Your task to perform on an android device: Open calendar and show me the first week of next month Image 0: 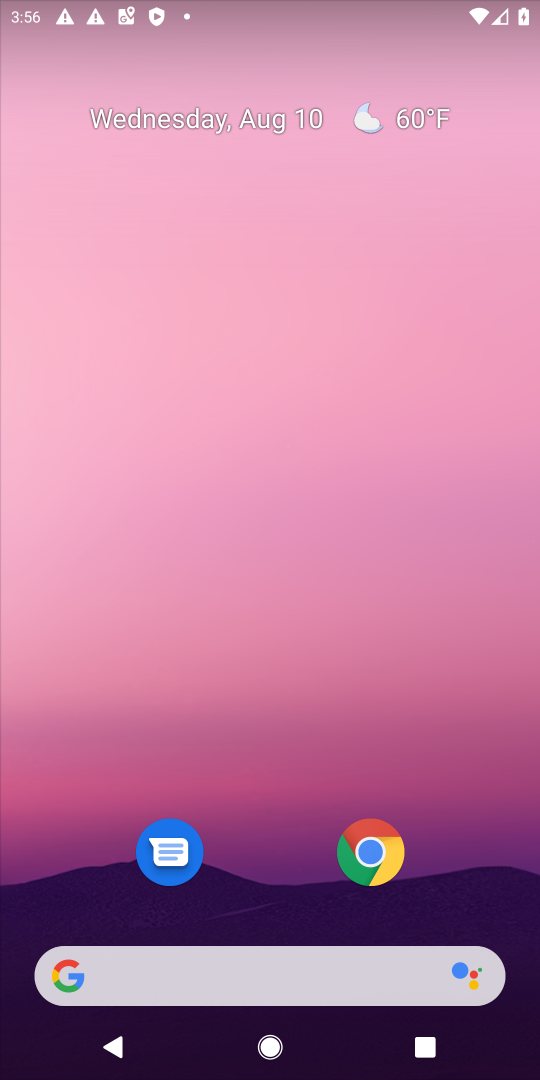
Step 0: drag from (457, 818) to (404, 9)
Your task to perform on an android device: Open calendar and show me the first week of next month Image 1: 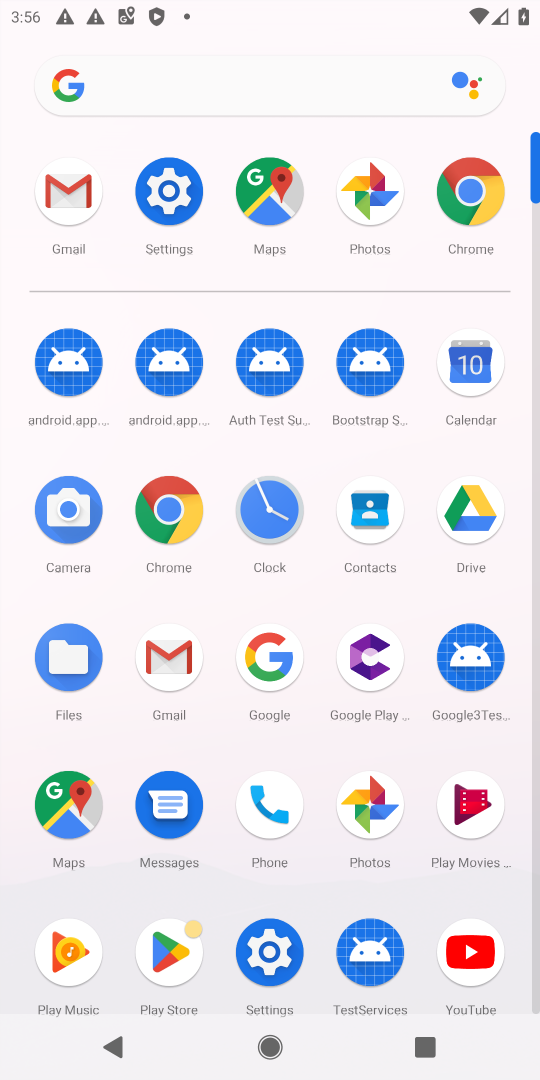
Step 1: click (480, 445)
Your task to perform on an android device: Open calendar and show me the first week of next month Image 2: 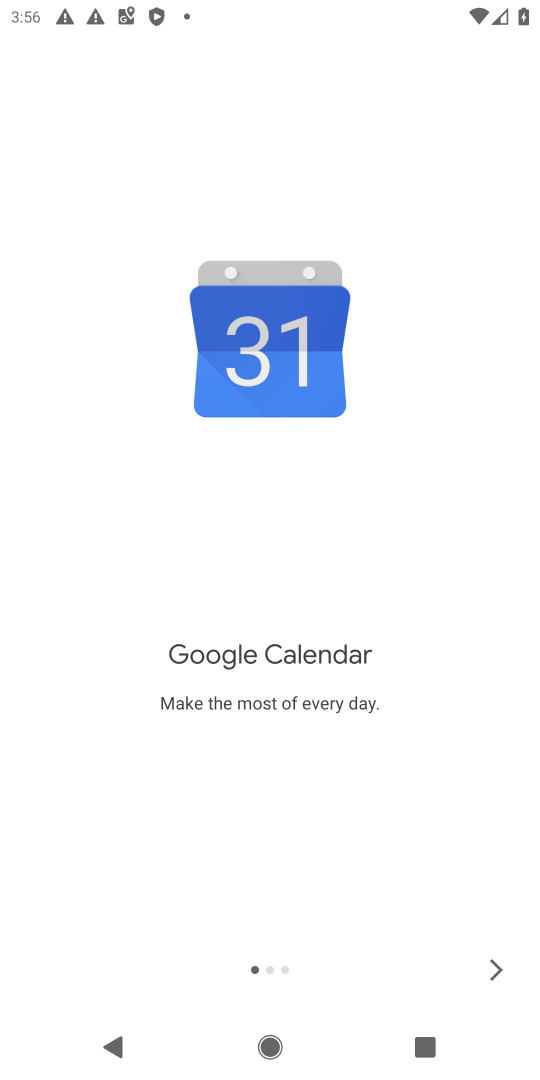
Step 2: click (493, 948)
Your task to perform on an android device: Open calendar and show me the first week of next month Image 3: 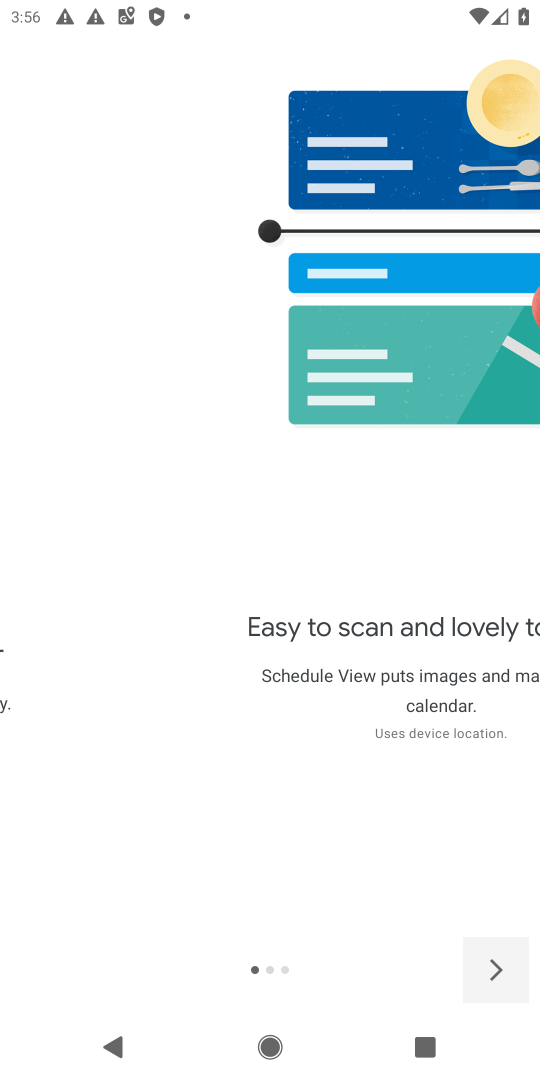
Step 3: click (493, 948)
Your task to perform on an android device: Open calendar and show me the first week of next month Image 4: 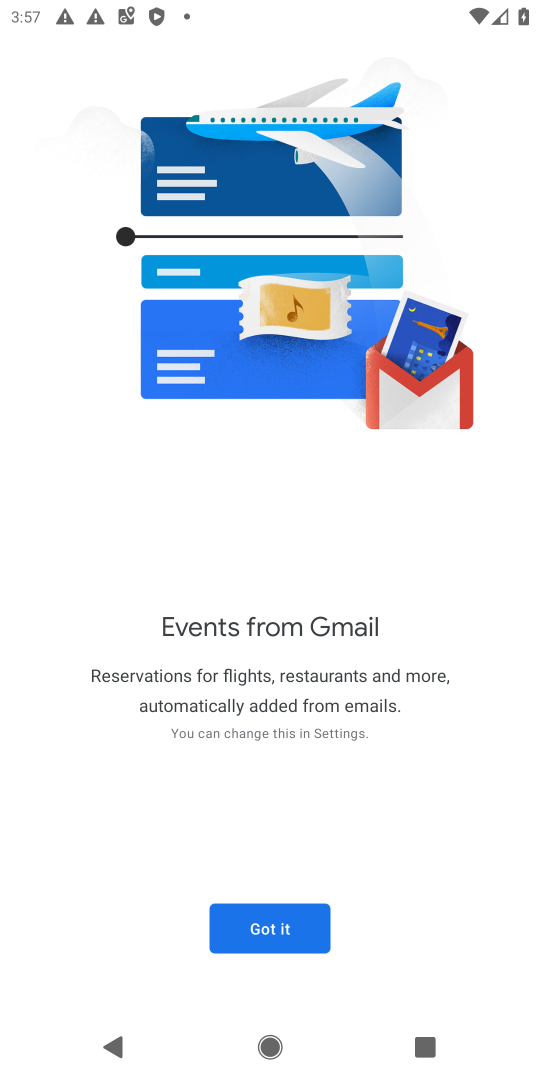
Step 4: click (493, 948)
Your task to perform on an android device: Open calendar and show me the first week of next month Image 5: 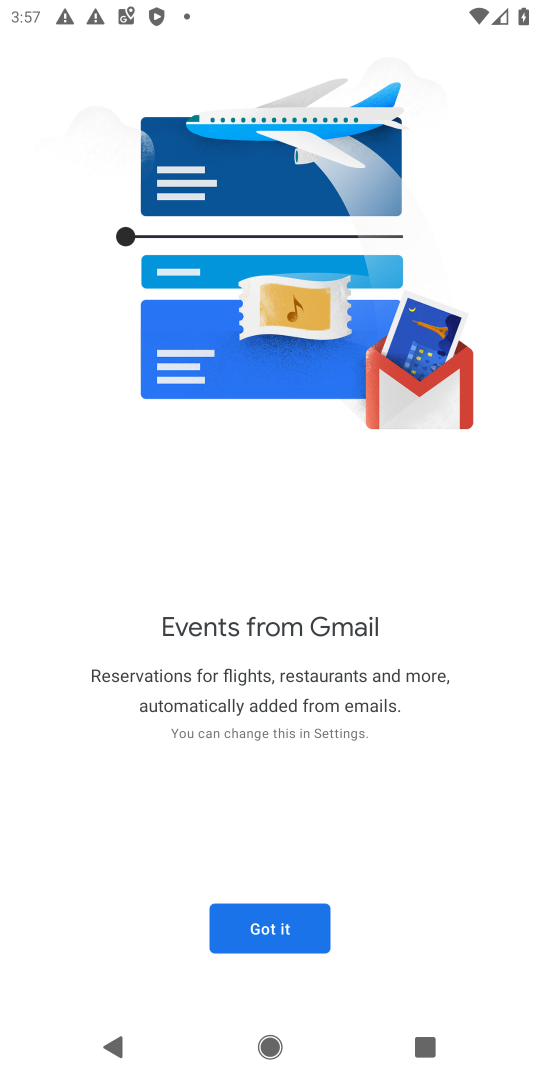
Step 5: click (285, 934)
Your task to perform on an android device: Open calendar and show me the first week of next month Image 6: 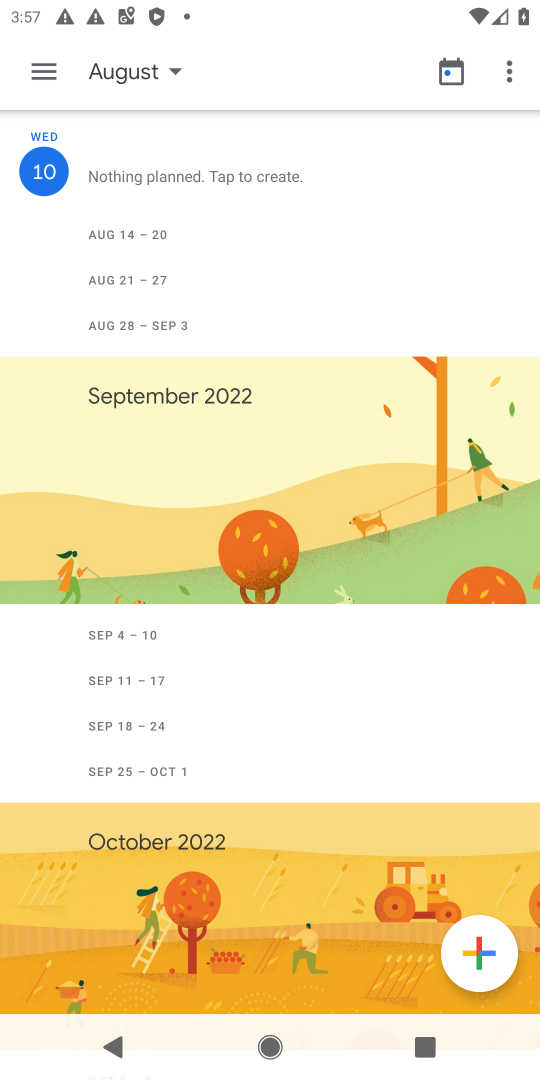
Step 6: click (128, 77)
Your task to perform on an android device: Open calendar and show me the first week of next month Image 7: 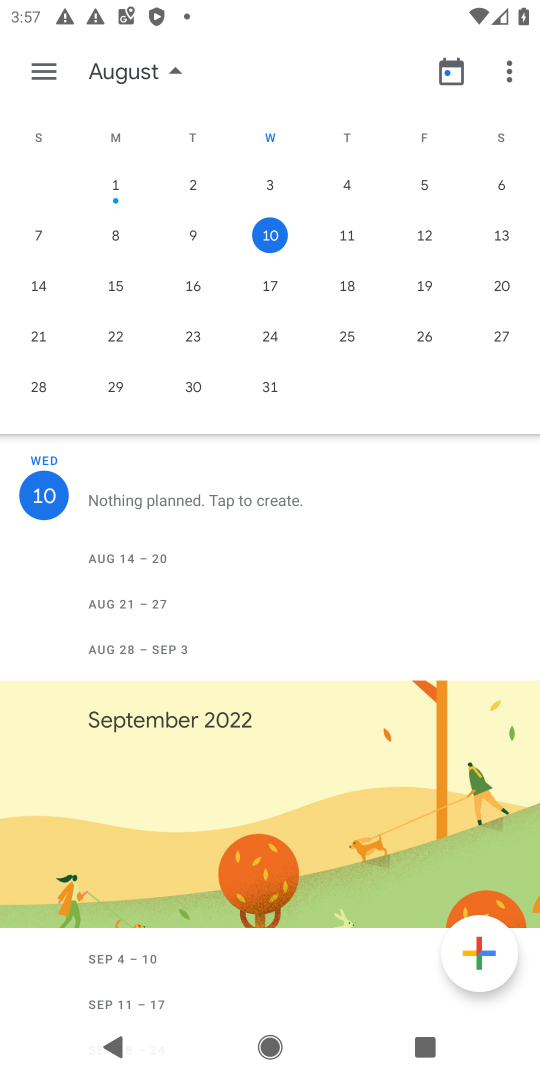
Step 7: click (257, 299)
Your task to perform on an android device: Open calendar and show me the first week of next month Image 8: 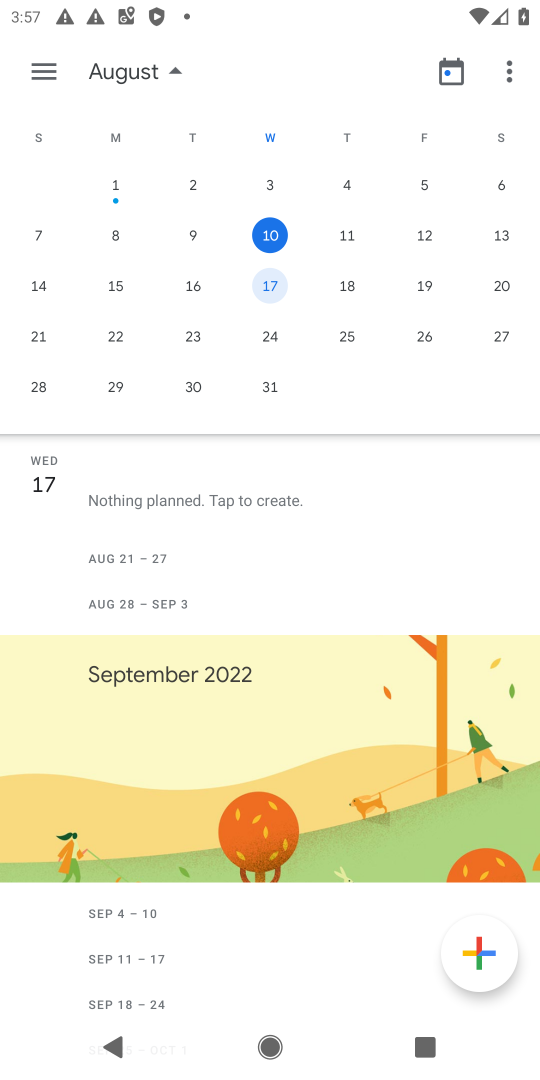
Step 8: click (28, 89)
Your task to perform on an android device: Open calendar and show me the first week of next month Image 9: 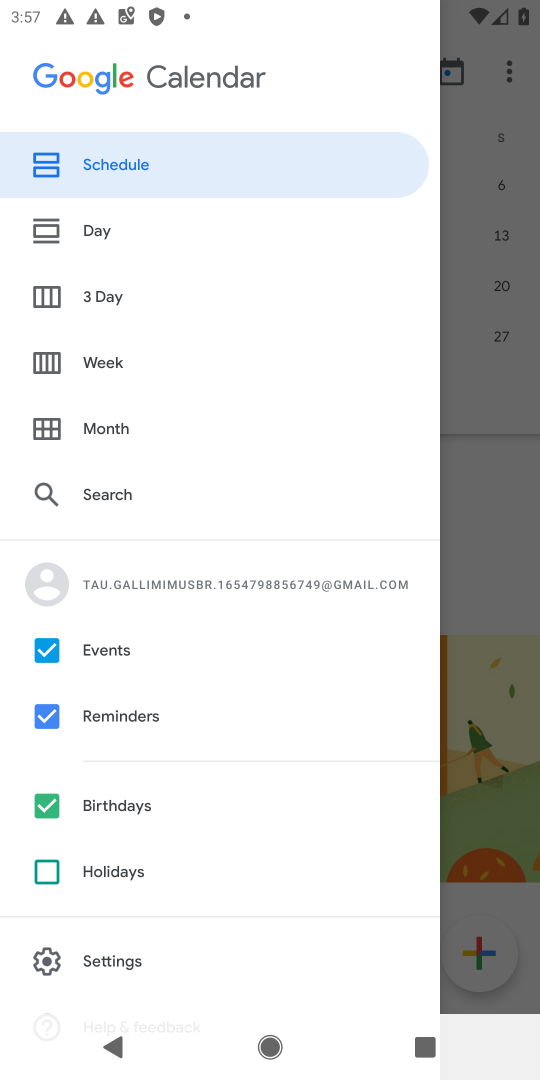
Step 9: click (105, 359)
Your task to perform on an android device: Open calendar and show me the first week of next month Image 10: 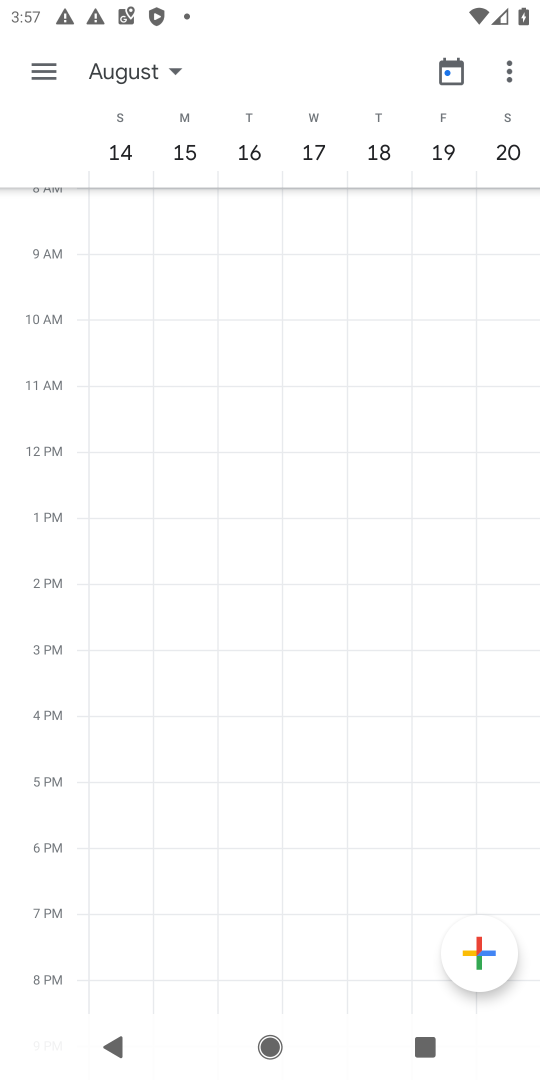
Step 10: task complete